Your task to perform on an android device: toggle improve location accuracy Image 0: 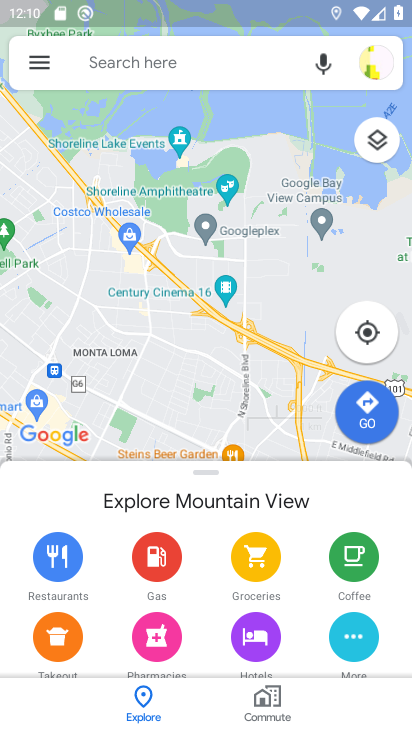
Step 0: press home button
Your task to perform on an android device: toggle improve location accuracy Image 1: 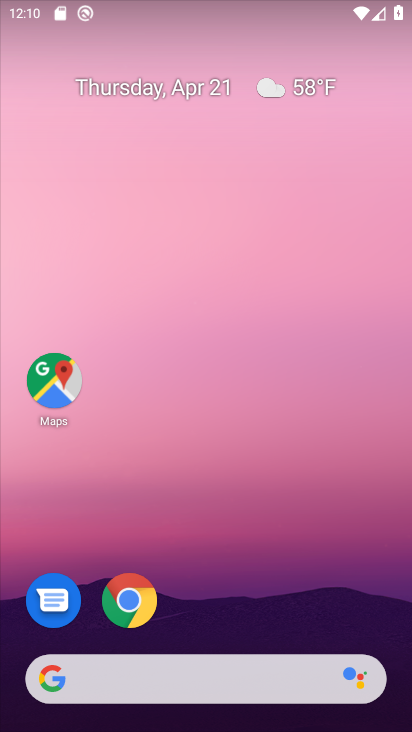
Step 1: drag from (302, 585) to (366, 97)
Your task to perform on an android device: toggle improve location accuracy Image 2: 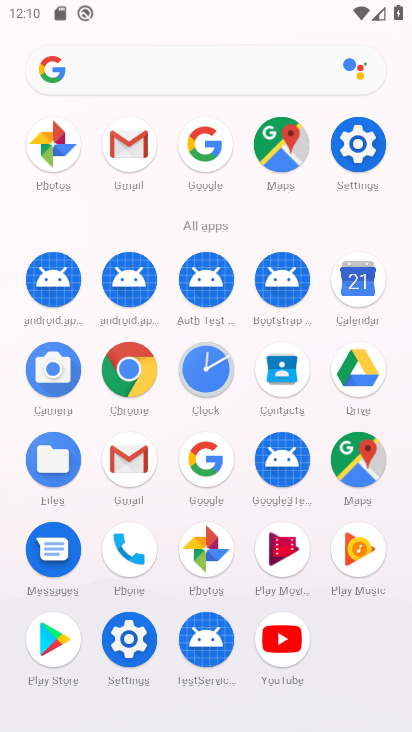
Step 2: click (351, 145)
Your task to perform on an android device: toggle improve location accuracy Image 3: 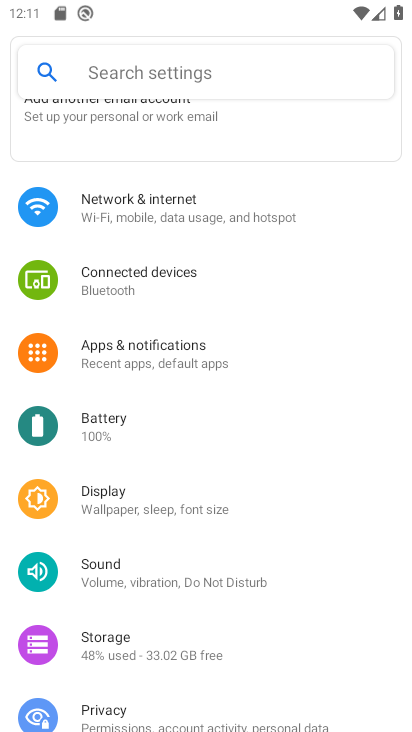
Step 3: drag from (214, 618) to (255, 228)
Your task to perform on an android device: toggle improve location accuracy Image 4: 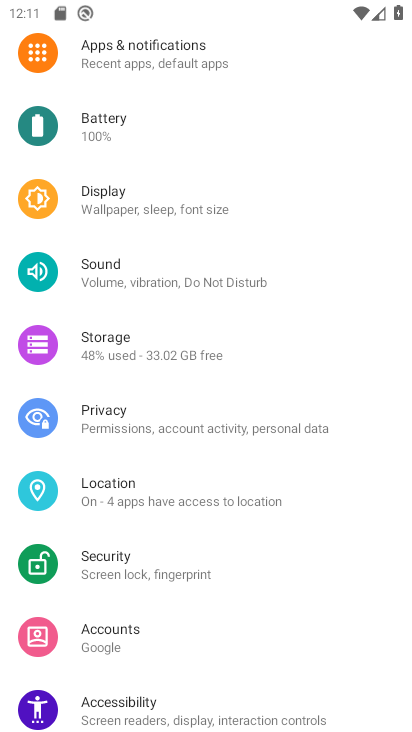
Step 4: click (190, 487)
Your task to perform on an android device: toggle improve location accuracy Image 5: 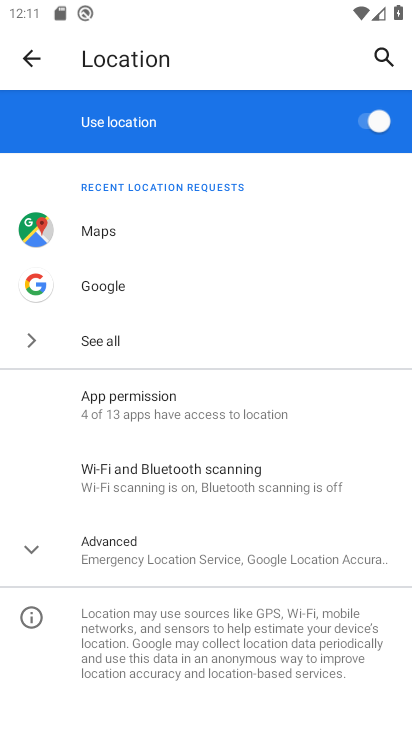
Step 5: click (28, 546)
Your task to perform on an android device: toggle improve location accuracy Image 6: 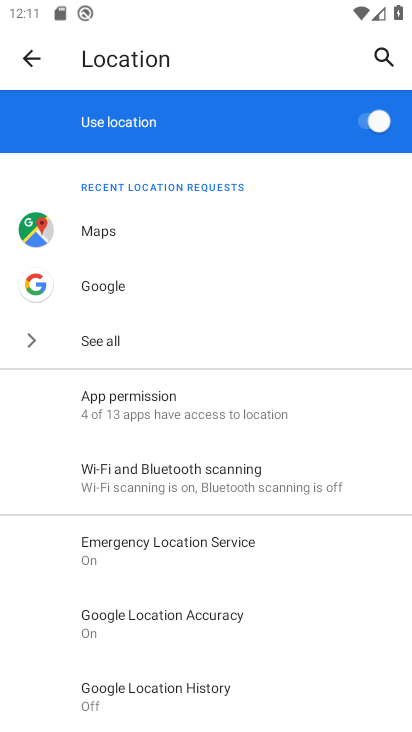
Step 6: click (160, 620)
Your task to perform on an android device: toggle improve location accuracy Image 7: 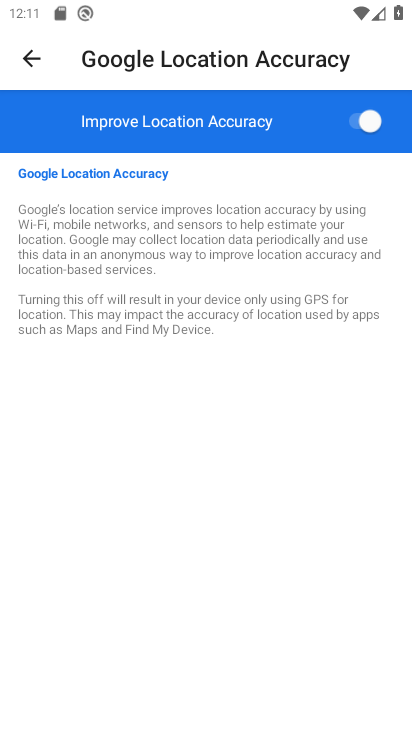
Step 7: click (362, 118)
Your task to perform on an android device: toggle improve location accuracy Image 8: 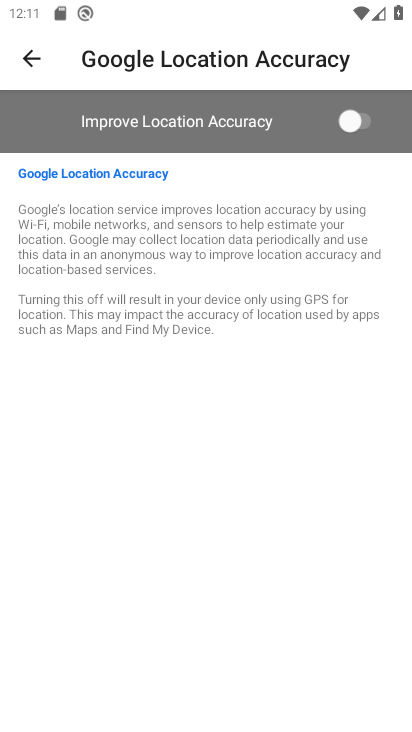
Step 8: task complete